Your task to perform on an android device: toggle data saver in the chrome app Image 0: 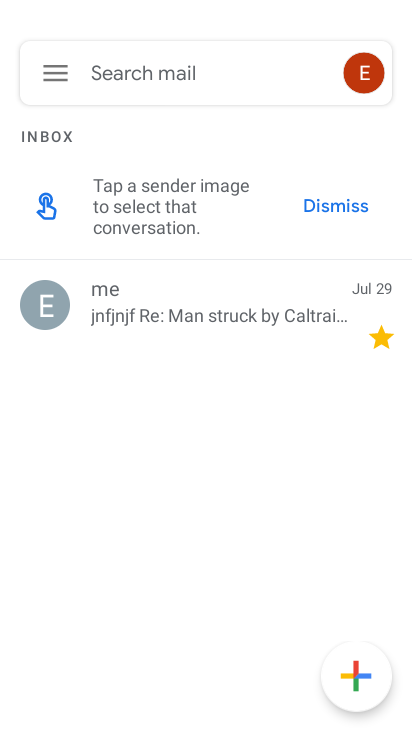
Step 0: press home button
Your task to perform on an android device: toggle data saver in the chrome app Image 1: 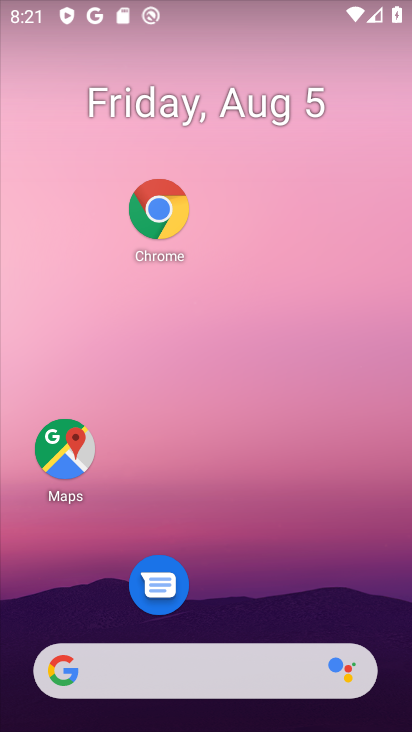
Step 1: drag from (198, 642) to (188, 130)
Your task to perform on an android device: toggle data saver in the chrome app Image 2: 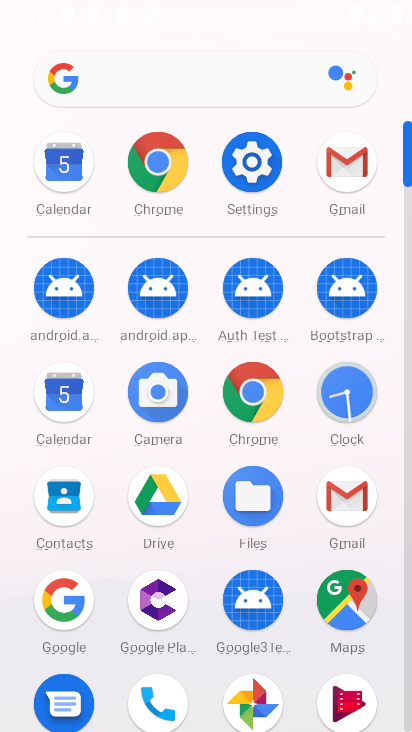
Step 2: click (145, 167)
Your task to perform on an android device: toggle data saver in the chrome app Image 3: 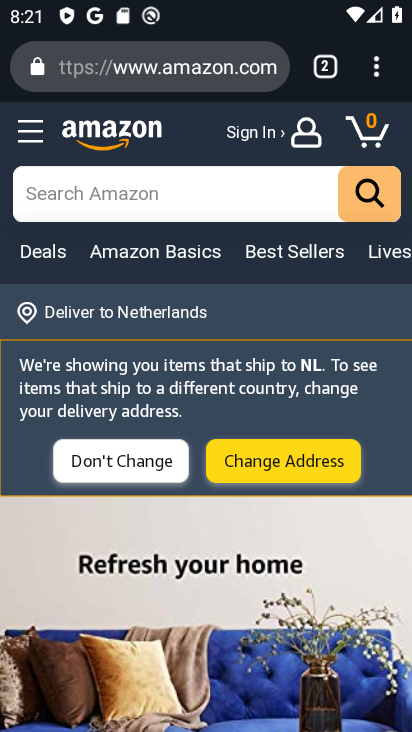
Step 3: click (375, 85)
Your task to perform on an android device: toggle data saver in the chrome app Image 4: 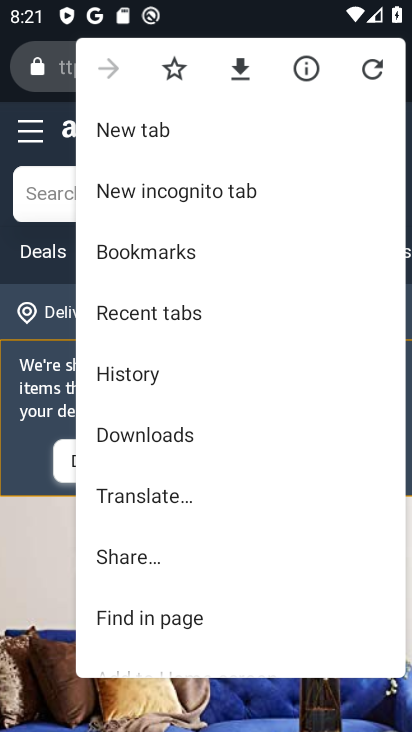
Step 4: drag from (222, 522) to (197, 220)
Your task to perform on an android device: toggle data saver in the chrome app Image 5: 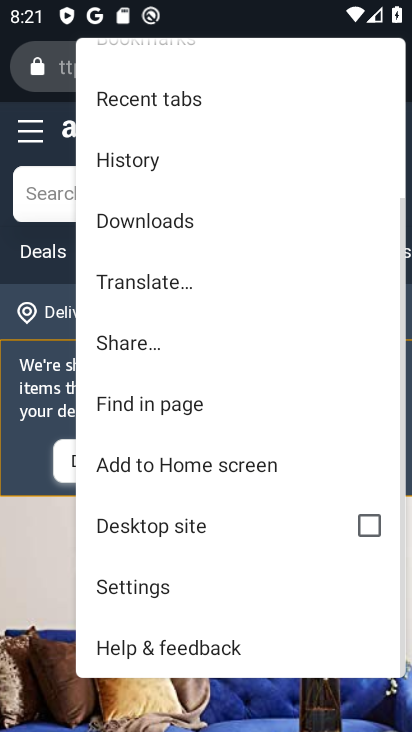
Step 5: click (164, 591)
Your task to perform on an android device: toggle data saver in the chrome app Image 6: 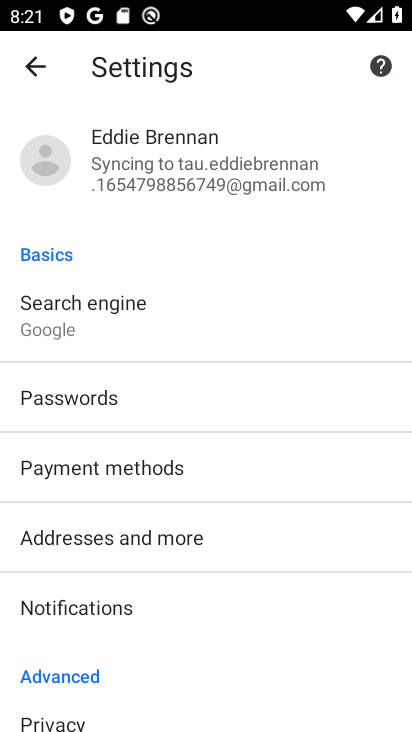
Step 6: drag from (191, 511) to (122, 119)
Your task to perform on an android device: toggle data saver in the chrome app Image 7: 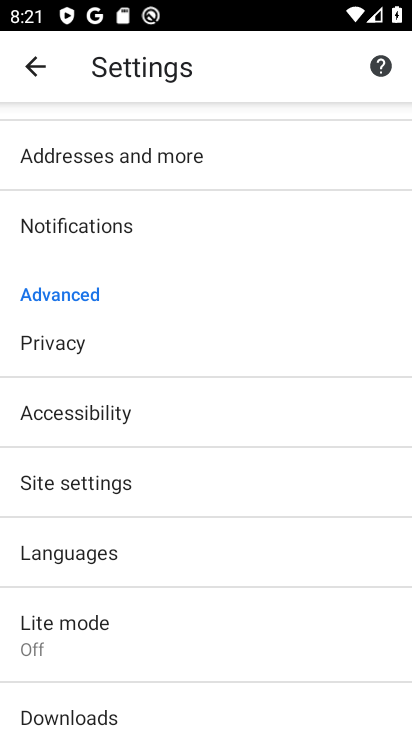
Step 7: click (70, 601)
Your task to perform on an android device: toggle data saver in the chrome app Image 8: 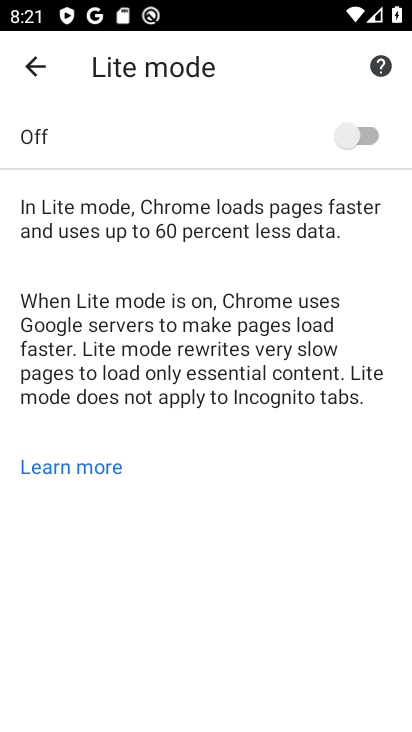
Step 8: click (338, 128)
Your task to perform on an android device: toggle data saver in the chrome app Image 9: 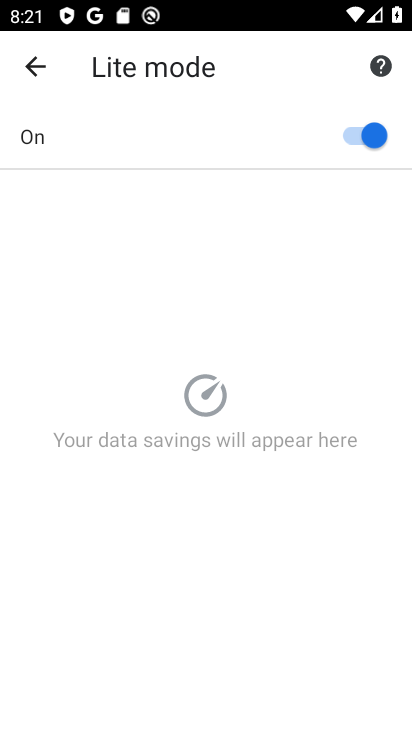
Step 9: task complete